Your task to perform on an android device: toggle javascript in the chrome app Image 0: 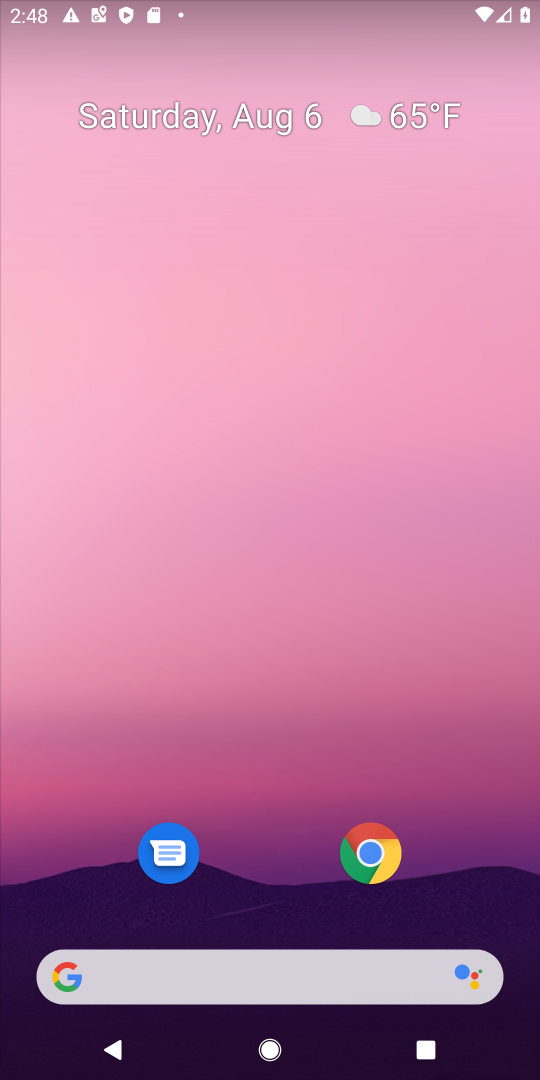
Step 0: click (369, 851)
Your task to perform on an android device: toggle javascript in the chrome app Image 1: 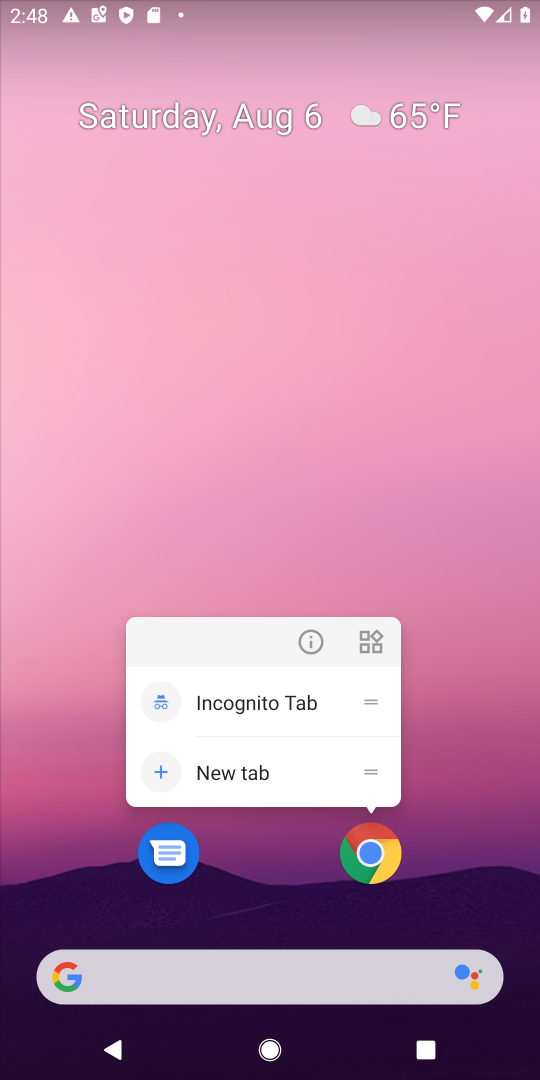
Step 1: click (369, 851)
Your task to perform on an android device: toggle javascript in the chrome app Image 2: 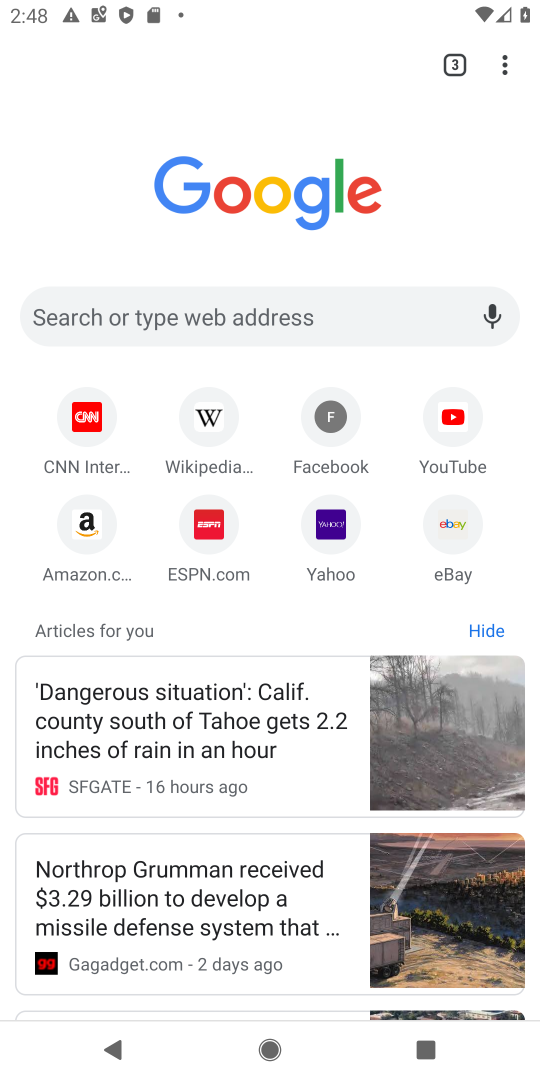
Step 2: drag from (510, 59) to (296, 549)
Your task to perform on an android device: toggle javascript in the chrome app Image 3: 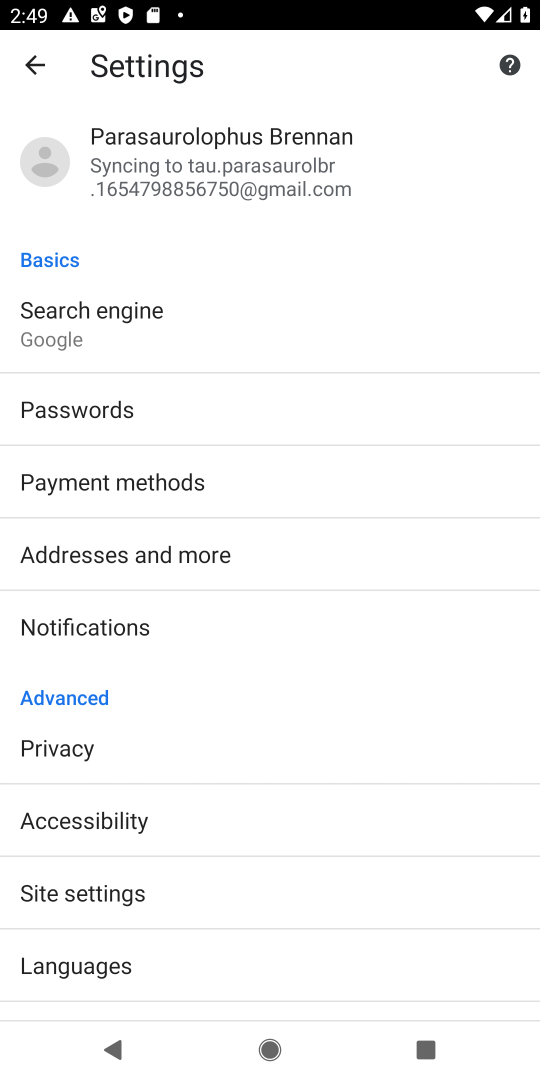
Step 3: click (152, 903)
Your task to perform on an android device: toggle javascript in the chrome app Image 4: 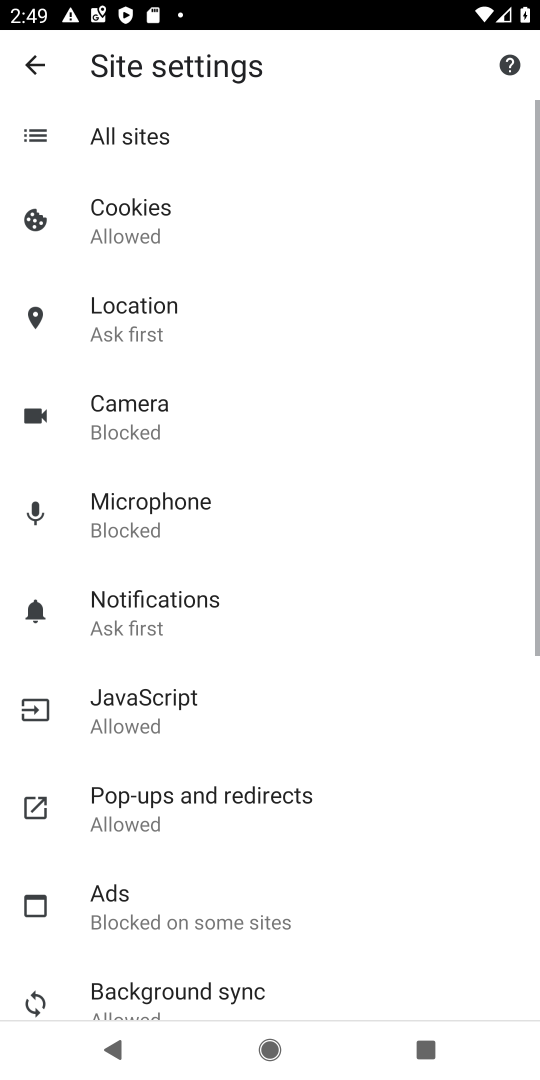
Step 4: drag from (165, 878) to (168, 1040)
Your task to perform on an android device: toggle javascript in the chrome app Image 5: 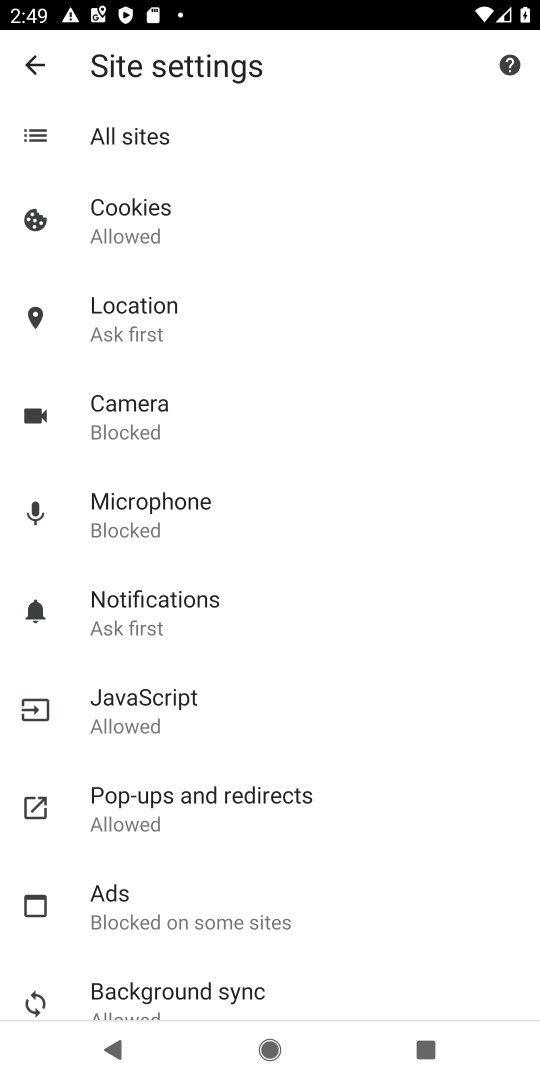
Step 5: click (145, 735)
Your task to perform on an android device: toggle javascript in the chrome app Image 6: 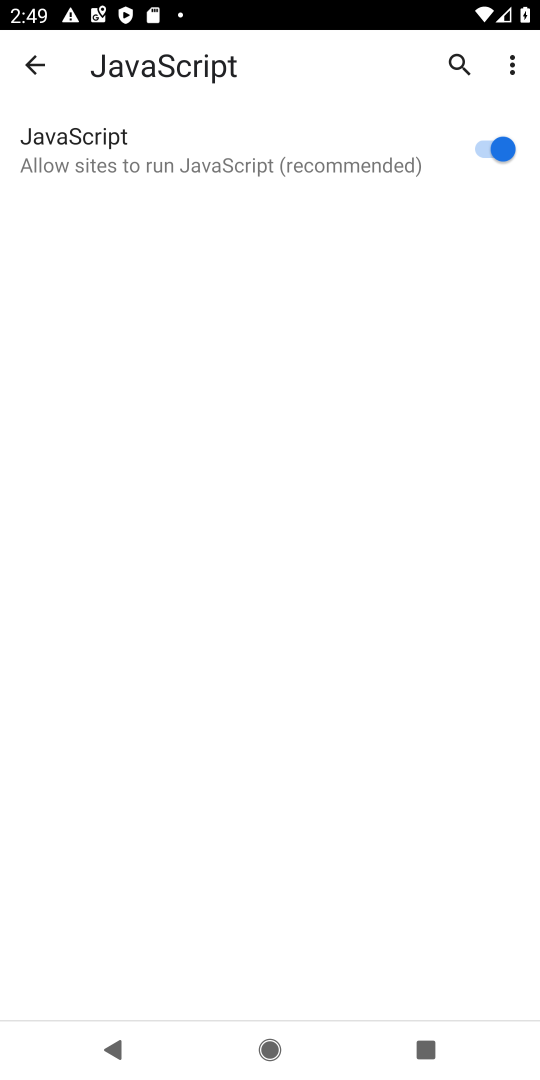
Step 6: click (500, 141)
Your task to perform on an android device: toggle javascript in the chrome app Image 7: 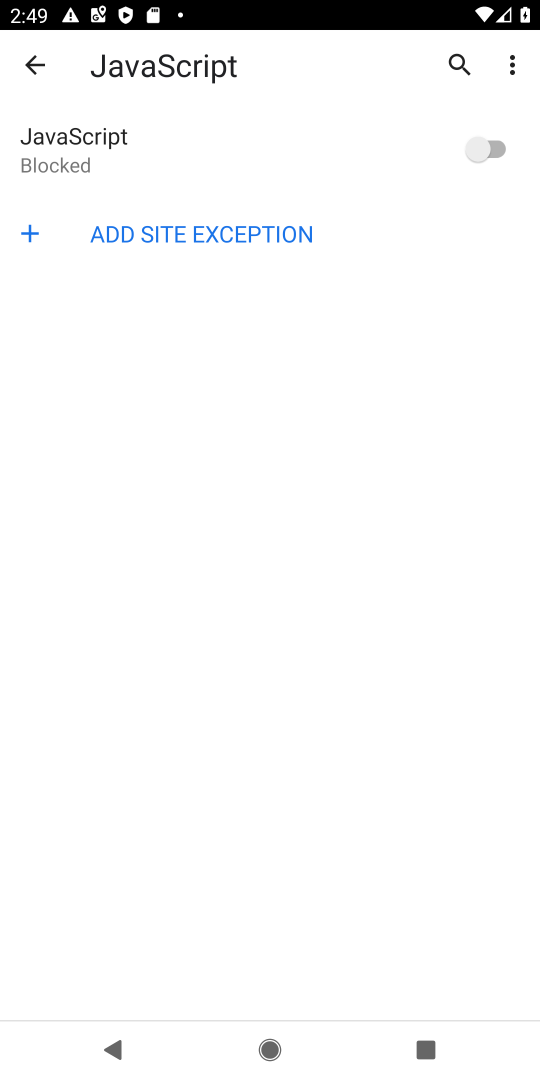
Step 7: task complete